Your task to perform on an android device: turn off priority inbox in the gmail app Image 0: 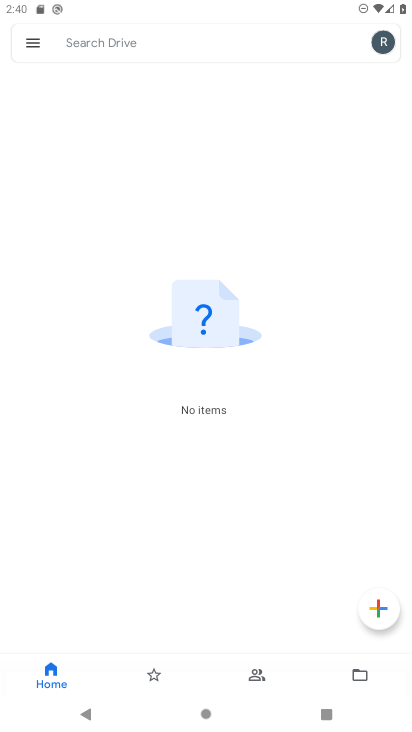
Step 0: click (206, 714)
Your task to perform on an android device: turn off priority inbox in the gmail app Image 1: 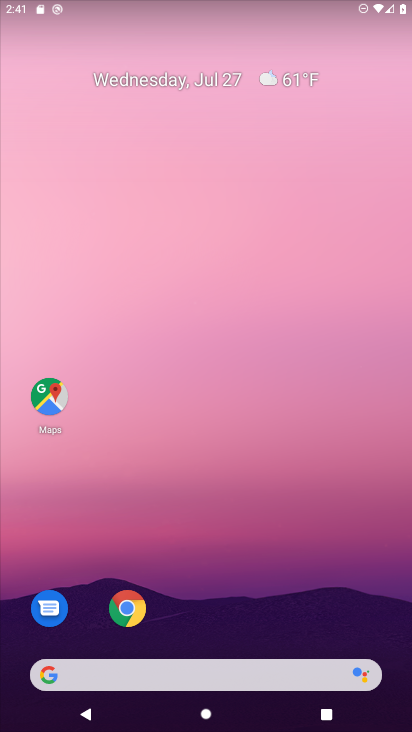
Step 1: drag from (211, 628) to (362, 197)
Your task to perform on an android device: turn off priority inbox in the gmail app Image 2: 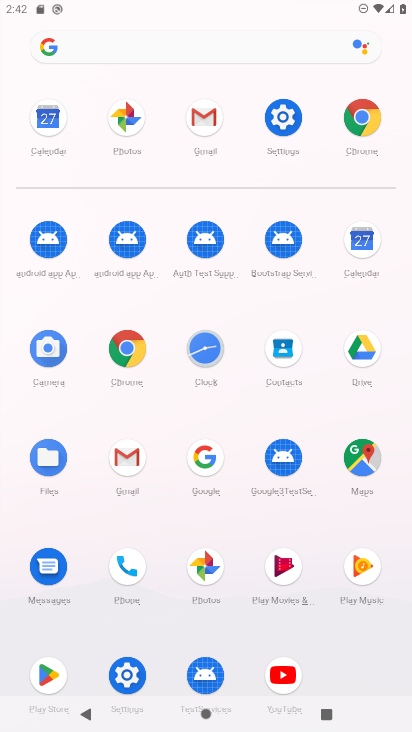
Step 2: click (197, 130)
Your task to perform on an android device: turn off priority inbox in the gmail app Image 3: 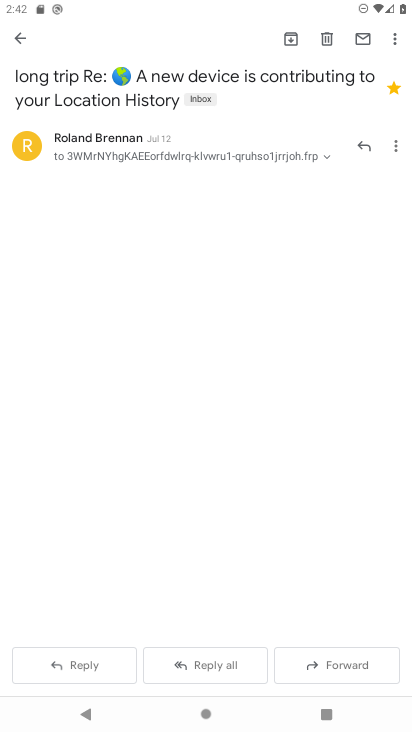
Step 3: click (11, 40)
Your task to perform on an android device: turn off priority inbox in the gmail app Image 4: 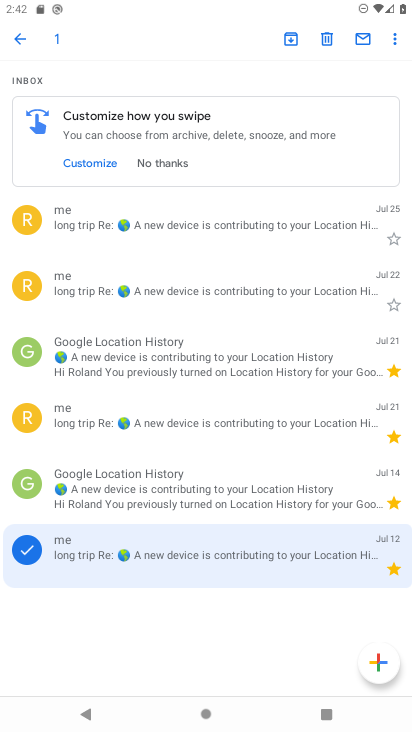
Step 4: click (14, 40)
Your task to perform on an android device: turn off priority inbox in the gmail app Image 5: 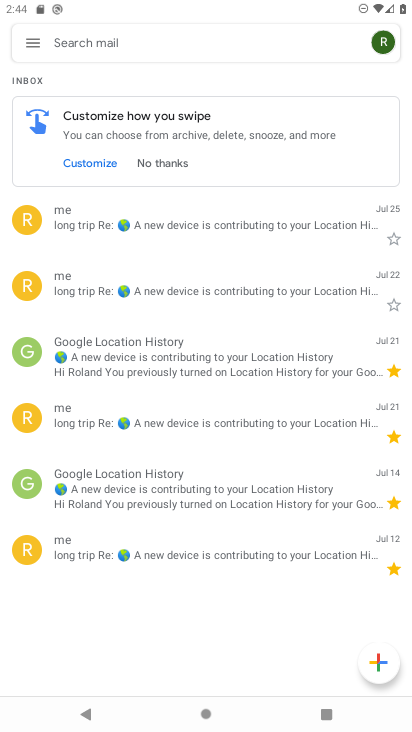
Step 5: click (28, 44)
Your task to perform on an android device: turn off priority inbox in the gmail app Image 6: 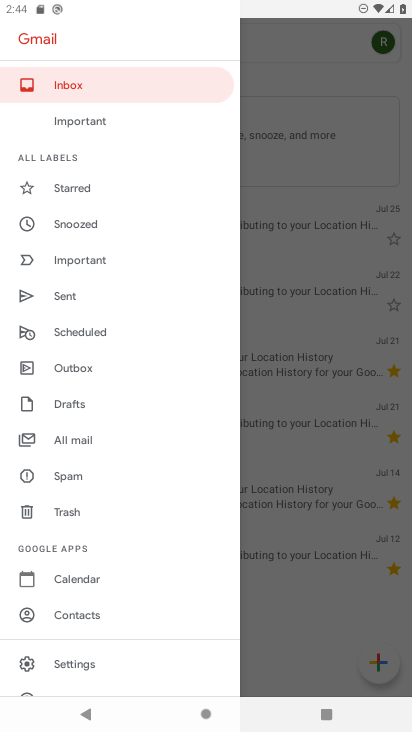
Step 6: click (68, 658)
Your task to perform on an android device: turn off priority inbox in the gmail app Image 7: 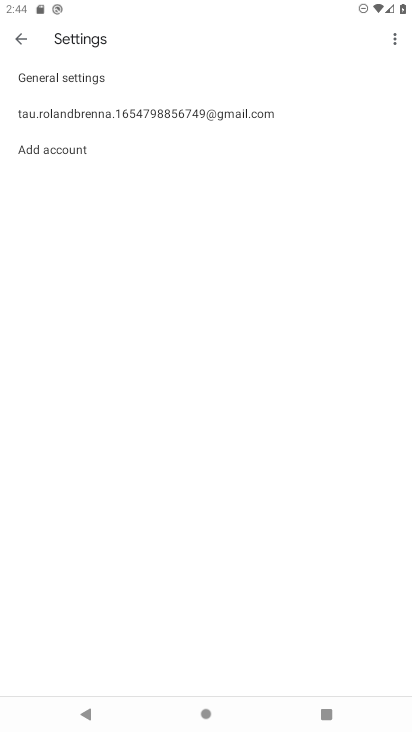
Step 7: click (207, 117)
Your task to perform on an android device: turn off priority inbox in the gmail app Image 8: 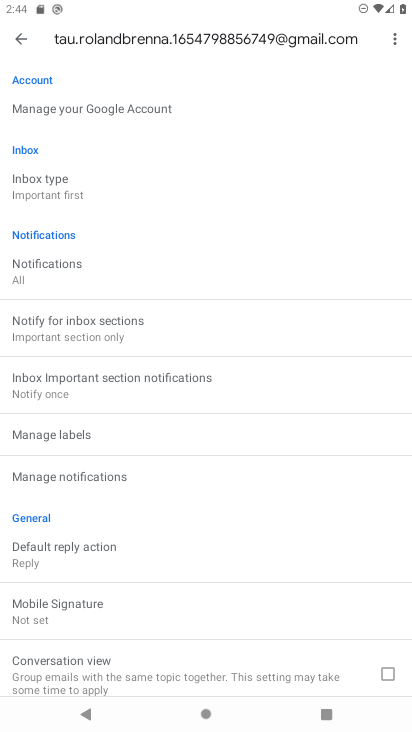
Step 8: click (99, 330)
Your task to perform on an android device: turn off priority inbox in the gmail app Image 9: 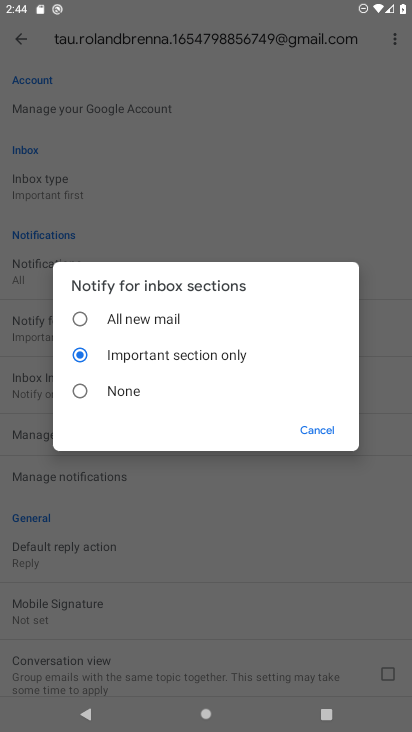
Step 9: click (326, 428)
Your task to perform on an android device: turn off priority inbox in the gmail app Image 10: 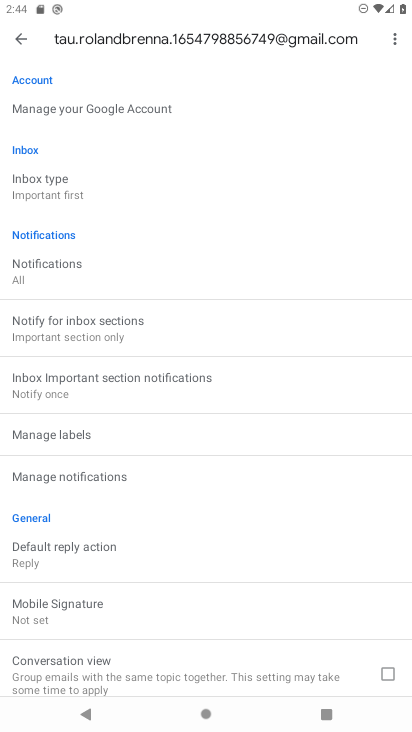
Step 10: click (57, 199)
Your task to perform on an android device: turn off priority inbox in the gmail app Image 11: 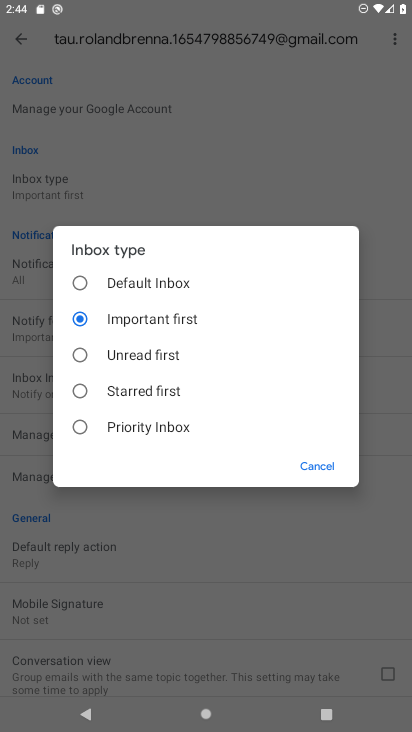
Step 11: task complete